Your task to perform on an android device: Set the phone to "Do not disturb". Image 0: 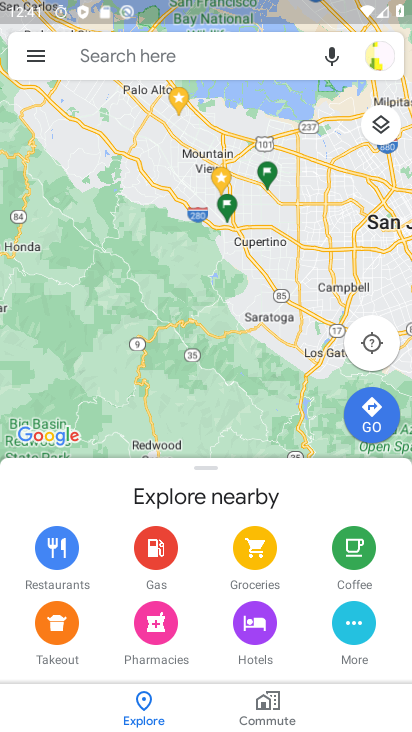
Step 0: press home button
Your task to perform on an android device: Set the phone to "Do not disturb". Image 1: 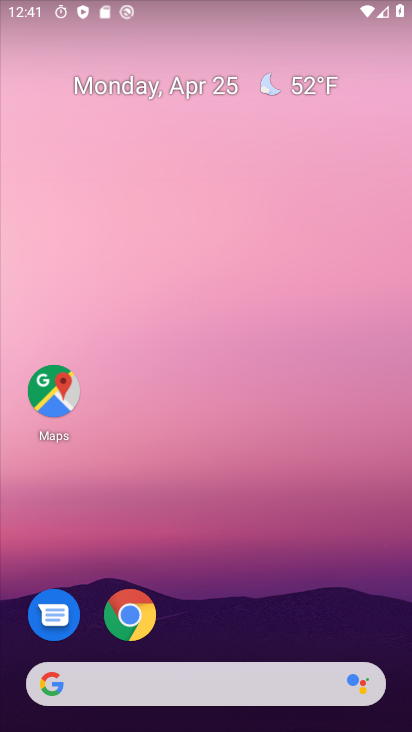
Step 1: drag from (211, 654) to (117, 3)
Your task to perform on an android device: Set the phone to "Do not disturb". Image 2: 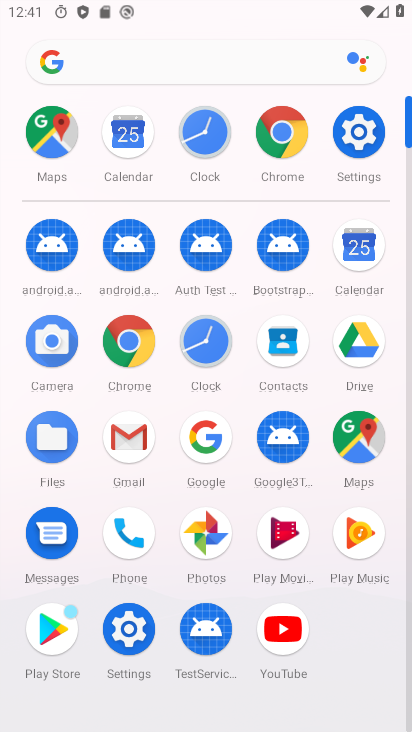
Step 2: drag from (241, 4) to (194, 444)
Your task to perform on an android device: Set the phone to "Do not disturb". Image 3: 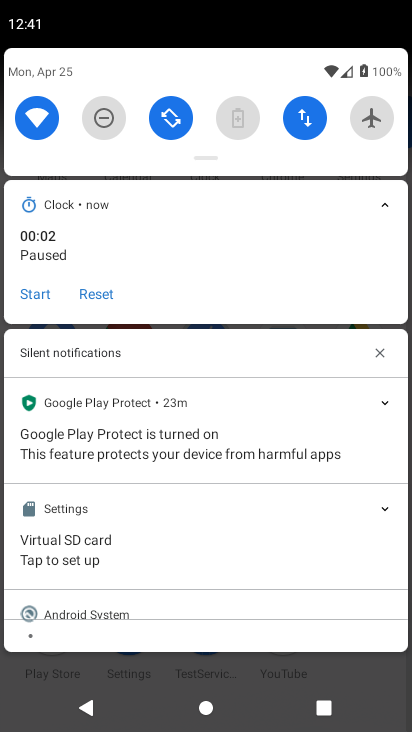
Step 3: click (105, 115)
Your task to perform on an android device: Set the phone to "Do not disturb". Image 4: 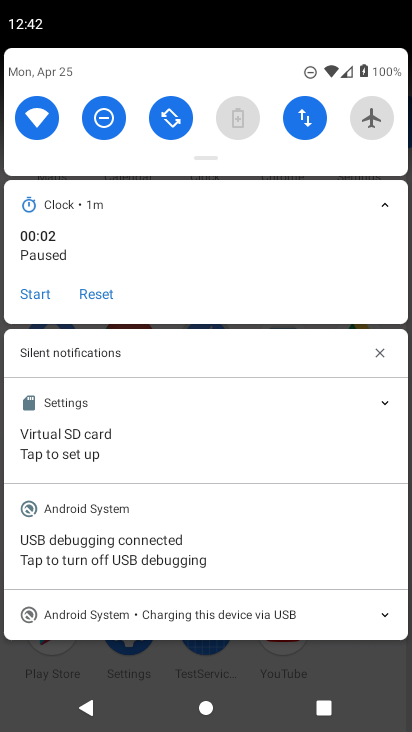
Step 4: task complete